Your task to perform on an android device: open app "Adobe Acrobat Reader: Edit PDF" (install if not already installed) Image 0: 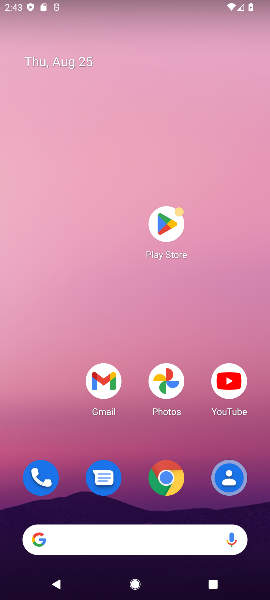
Step 0: click (163, 228)
Your task to perform on an android device: open app "Adobe Acrobat Reader: Edit PDF" (install if not already installed) Image 1: 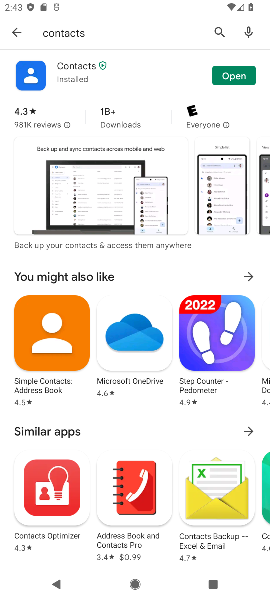
Step 1: click (218, 27)
Your task to perform on an android device: open app "Adobe Acrobat Reader: Edit PDF" (install if not already installed) Image 2: 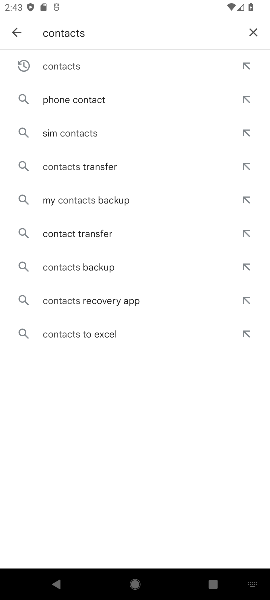
Step 2: click (252, 32)
Your task to perform on an android device: open app "Adobe Acrobat Reader: Edit PDF" (install if not already installed) Image 3: 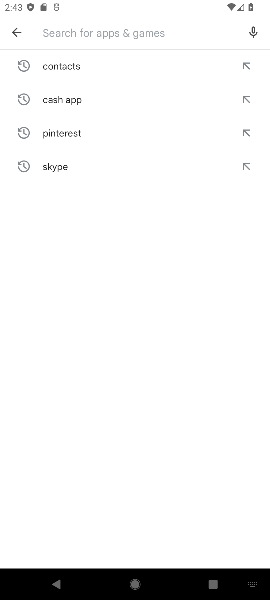
Step 3: type "Adobe Acrobat Reader: Edit PDF"
Your task to perform on an android device: open app "Adobe Acrobat Reader: Edit PDF" (install if not already installed) Image 4: 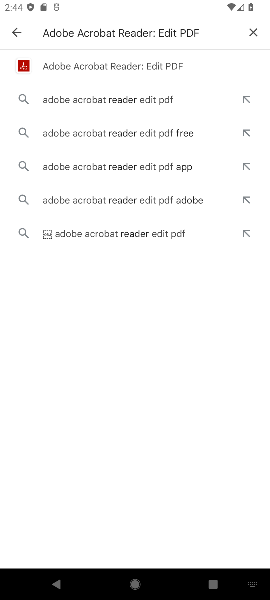
Step 4: click (98, 62)
Your task to perform on an android device: open app "Adobe Acrobat Reader: Edit PDF" (install if not already installed) Image 5: 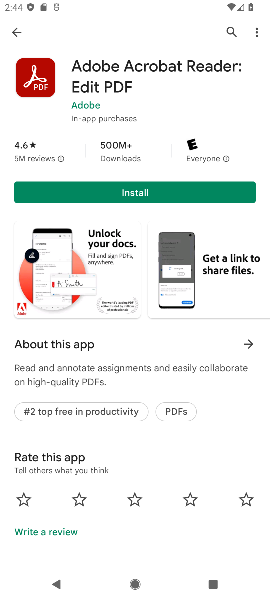
Step 5: click (152, 193)
Your task to perform on an android device: open app "Adobe Acrobat Reader: Edit PDF" (install if not already installed) Image 6: 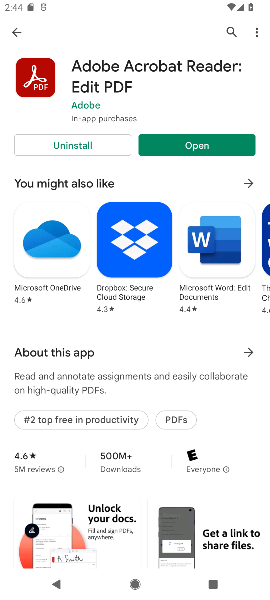
Step 6: click (209, 134)
Your task to perform on an android device: open app "Adobe Acrobat Reader: Edit PDF" (install if not already installed) Image 7: 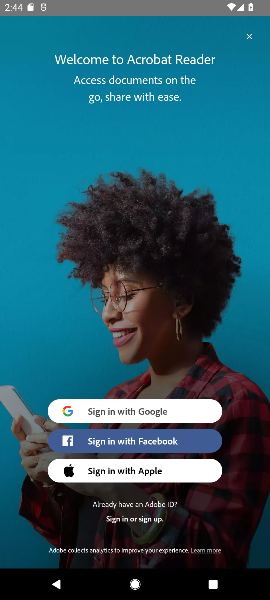
Step 7: task complete